Your task to perform on an android device: change timer sound Image 0: 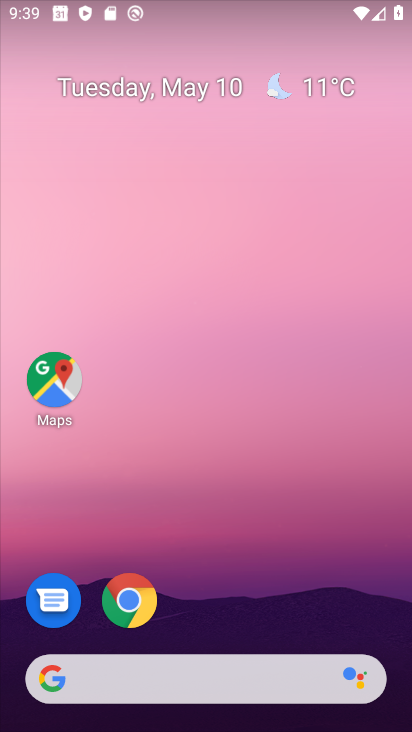
Step 0: drag from (289, 534) to (234, 125)
Your task to perform on an android device: change timer sound Image 1: 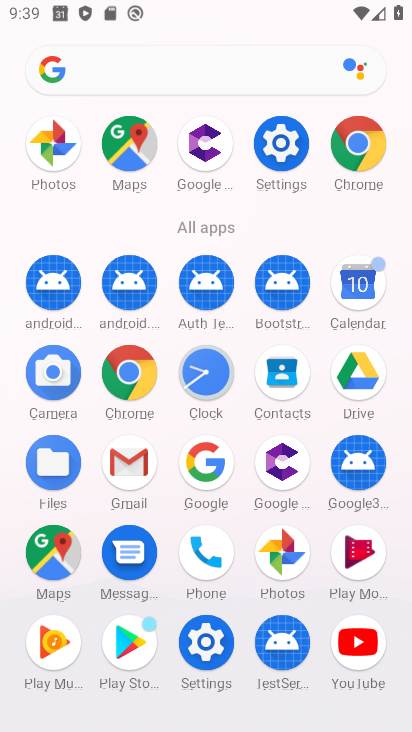
Step 1: click (205, 383)
Your task to perform on an android device: change timer sound Image 2: 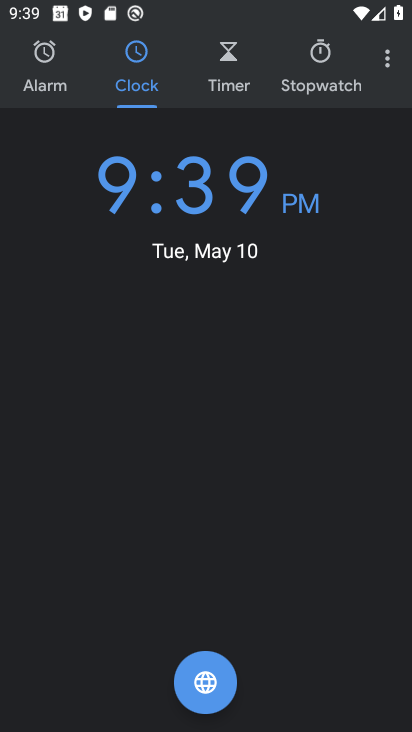
Step 2: click (388, 57)
Your task to perform on an android device: change timer sound Image 3: 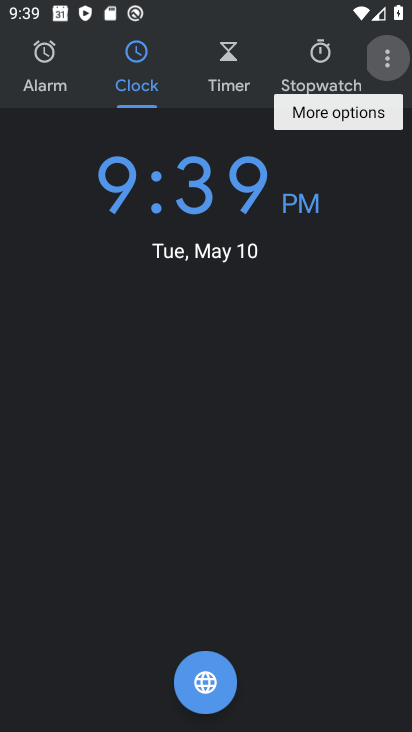
Step 3: click (388, 57)
Your task to perform on an android device: change timer sound Image 4: 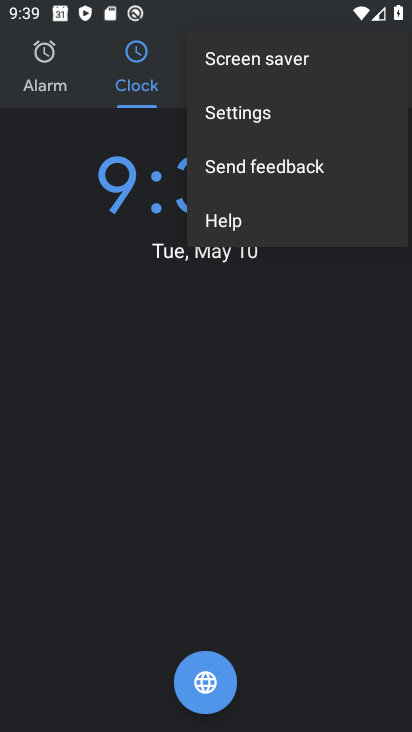
Step 4: click (255, 117)
Your task to perform on an android device: change timer sound Image 5: 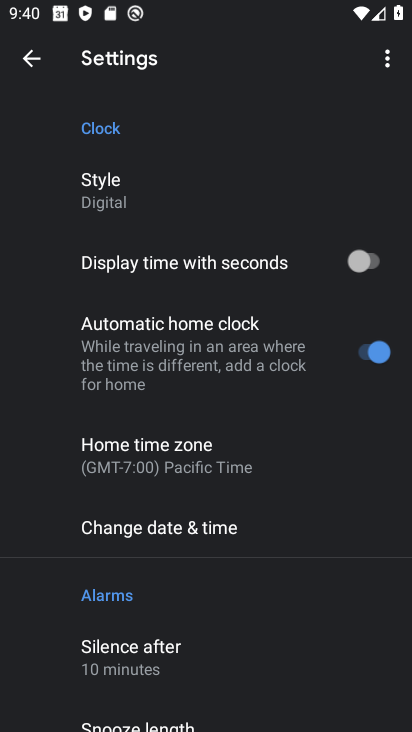
Step 5: drag from (262, 610) to (230, 222)
Your task to perform on an android device: change timer sound Image 6: 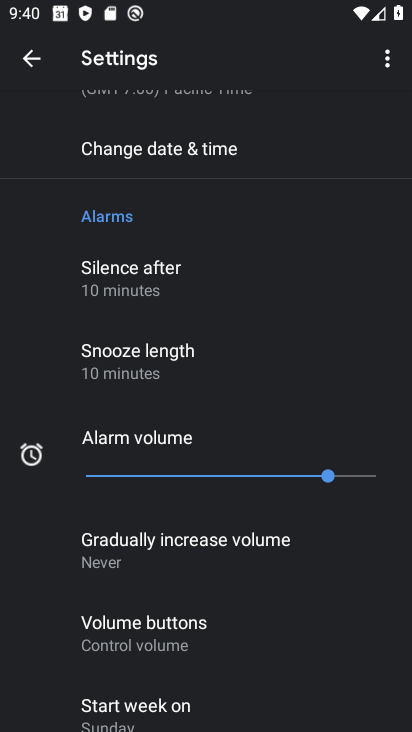
Step 6: drag from (242, 602) to (201, 268)
Your task to perform on an android device: change timer sound Image 7: 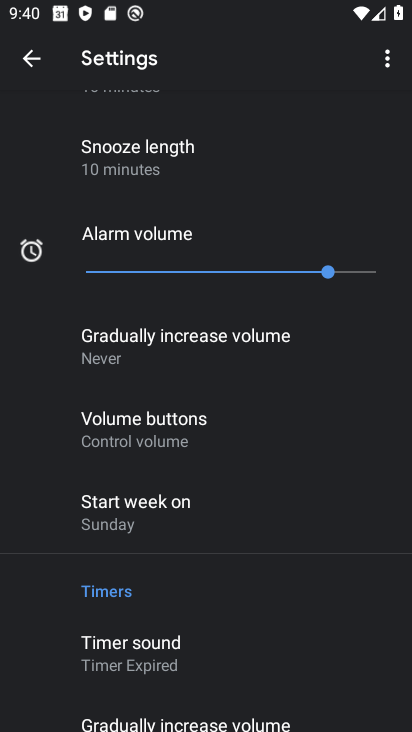
Step 7: click (161, 657)
Your task to perform on an android device: change timer sound Image 8: 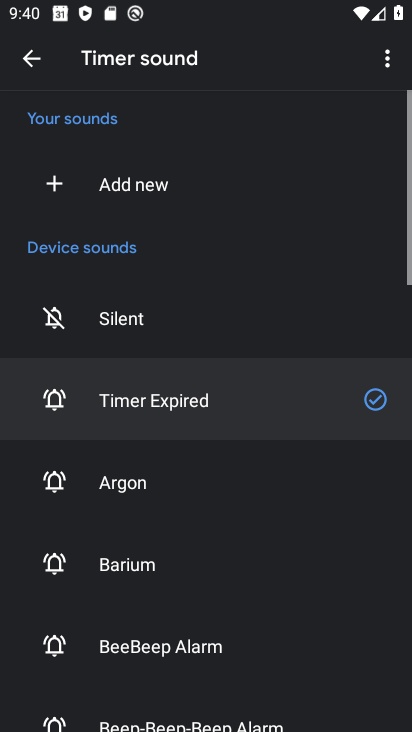
Step 8: click (82, 480)
Your task to perform on an android device: change timer sound Image 9: 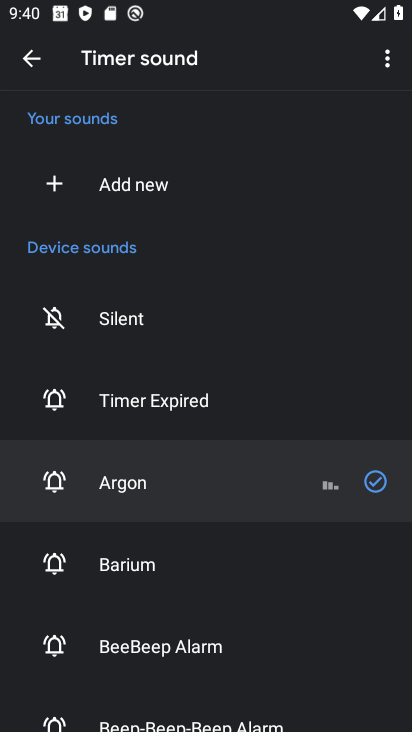
Step 9: task complete